Your task to perform on an android device: Add "logitech g pro" to the cart on ebay, then select checkout. Image 0: 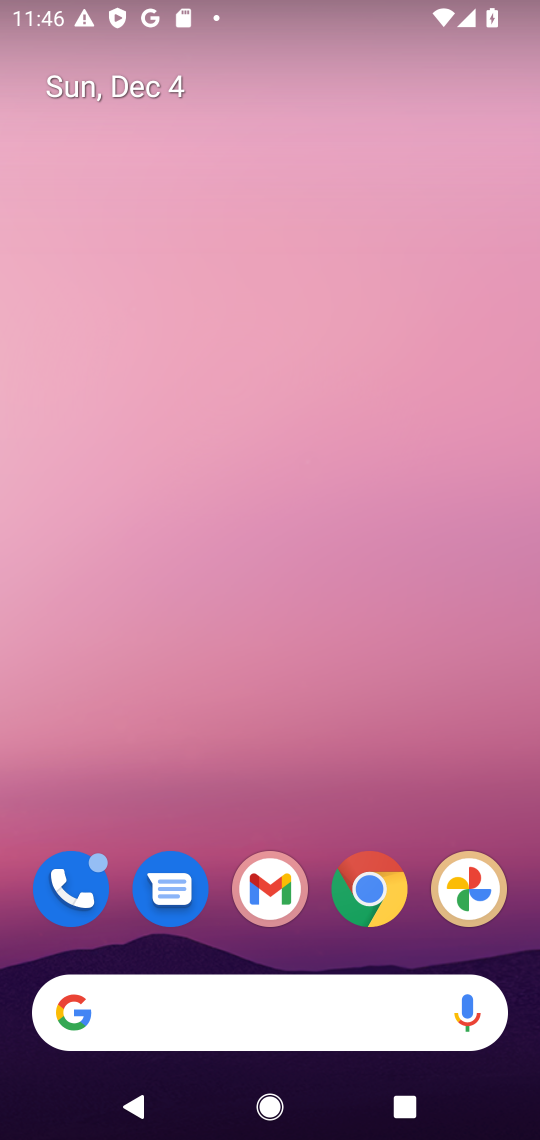
Step 0: click (361, 880)
Your task to perform on an android device: Add "logitech g pro" to the cart on ebay, then select checkout. Image 1: 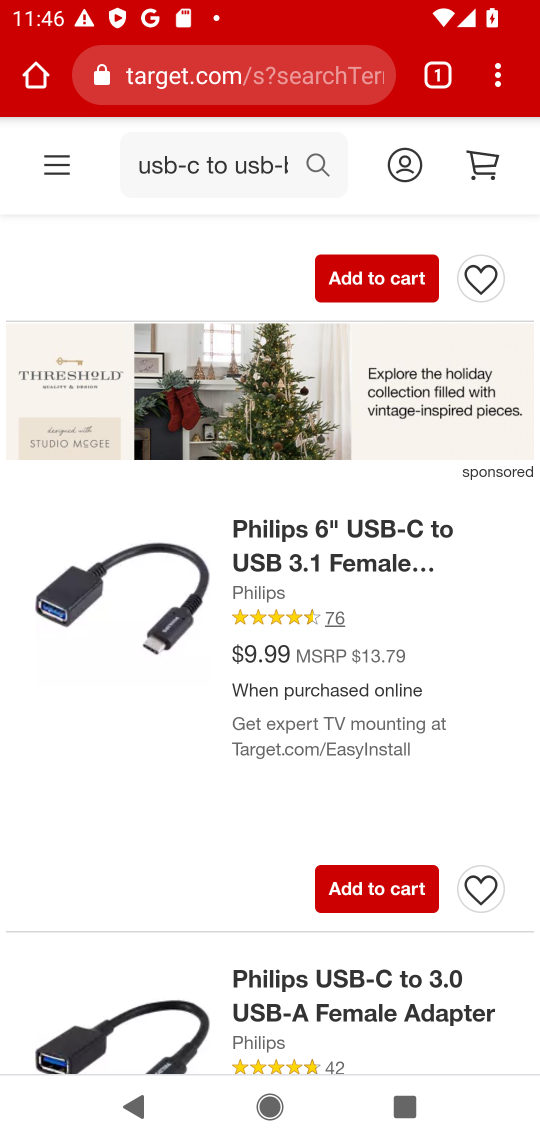
Step 1: click (215, 71)
Your task to perform on an android device: Add "logitech g pro" to the cart on ebay, then select checkout. Image 2: 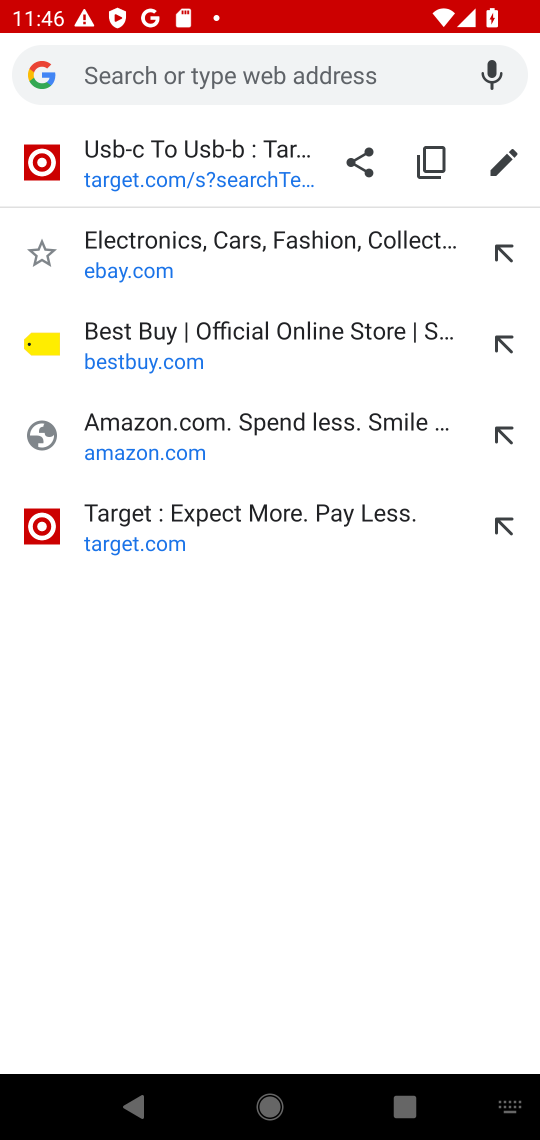
Step 2: click (211, 249)
Your task to perform on an android device: Add "logitech g pro" to the cart on ebay, then select checkout. Image 3: 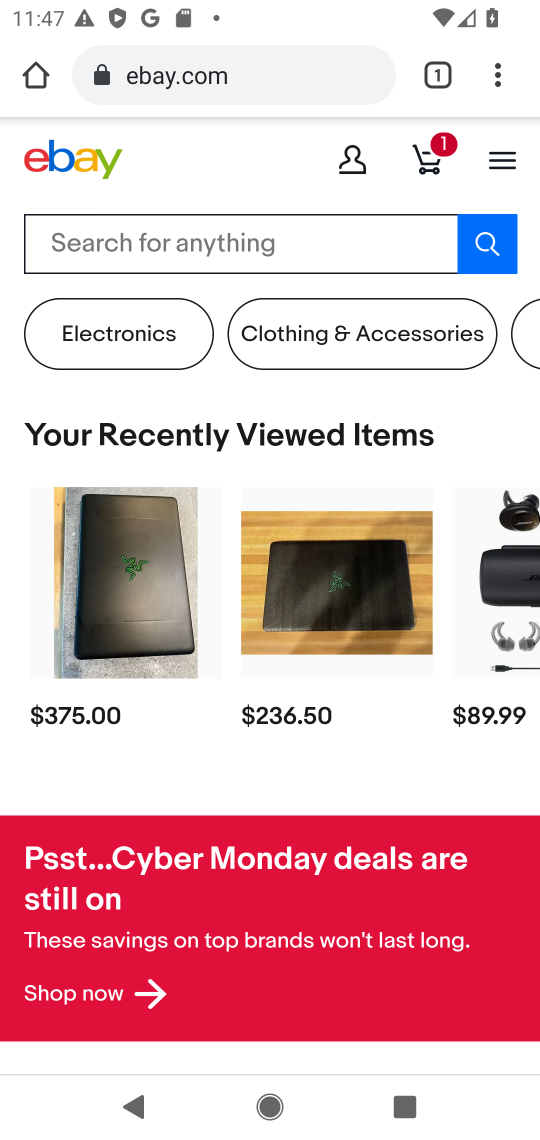
Step 3: click (214, 222)
Your task to perform on an android device: Add "logitech g pro" to the cart on ebay, then select checkout. Image 4: 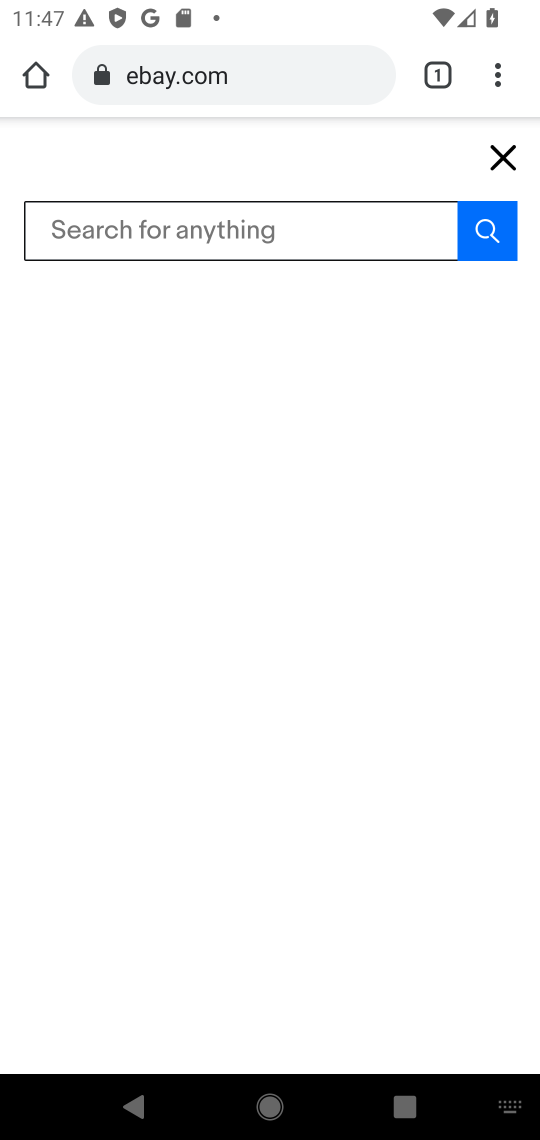
Step 4: type "logitech g pro"
Your task to perform on an android device: Add "logitech g pro" to the cart on ebay, then select checkout. Image 5: 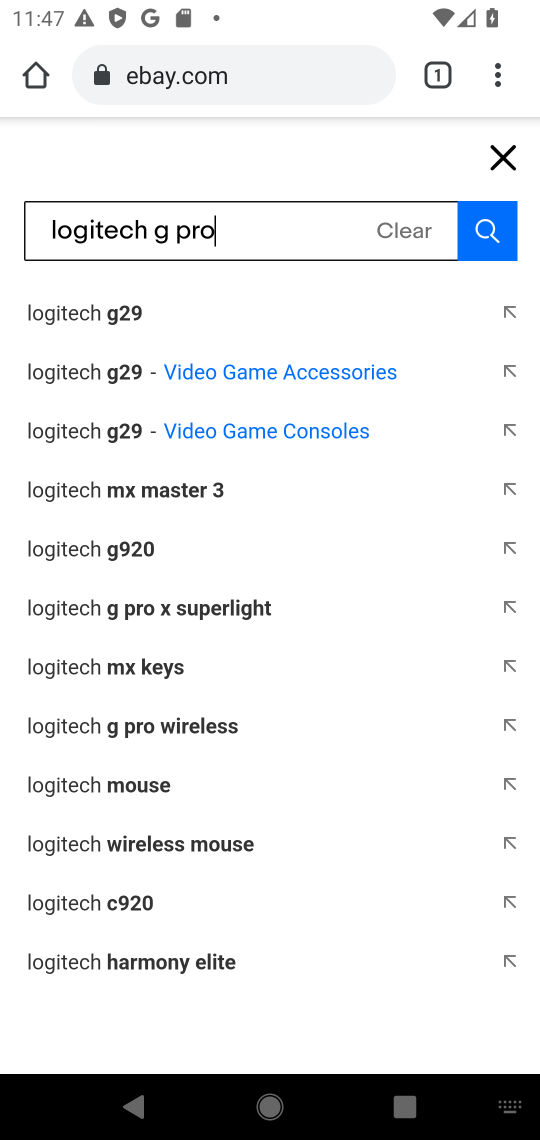
Step 5: press enter
Your task to perform on an android device: Add "logitech g pro" to the cart on ebay, then select checkout. Image 6: 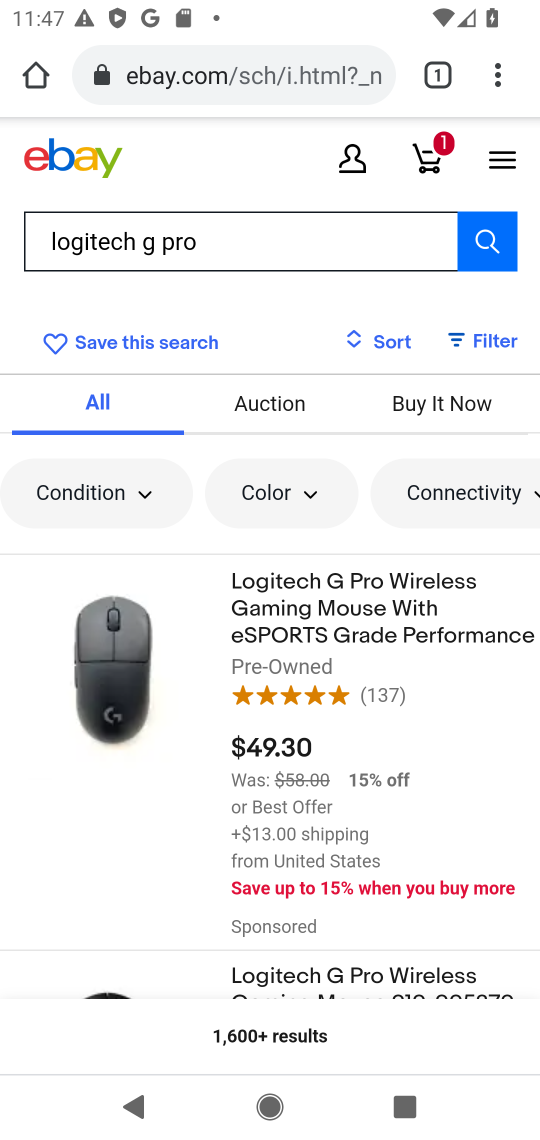
Step 6: click (122, 688)
Your task to perform on an android device: Add "logitech g pro" to the cart on ebay, then select checkout. Image 7: 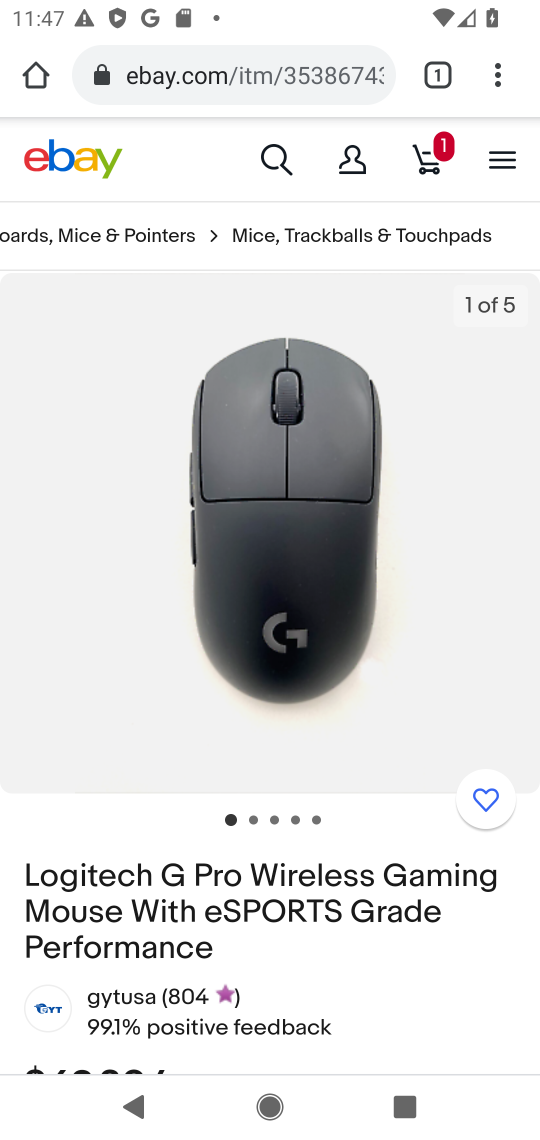
Step 7: drag from (429, 935) to (352, 290)
Your task to perform on an android device: Add "logitech g pro" to the cart on ebay, then select checkout. Image 8: 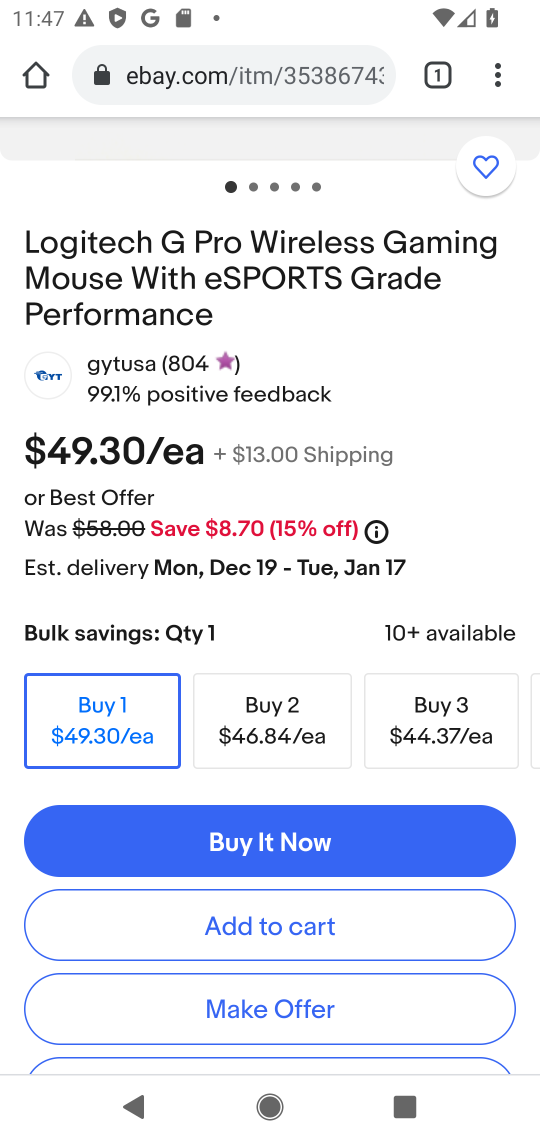
Step 8: click (290, 930)
Your task to perform on an android device: Add "logitech g pro" to the cart on ebay, then select checkout. Image 9: 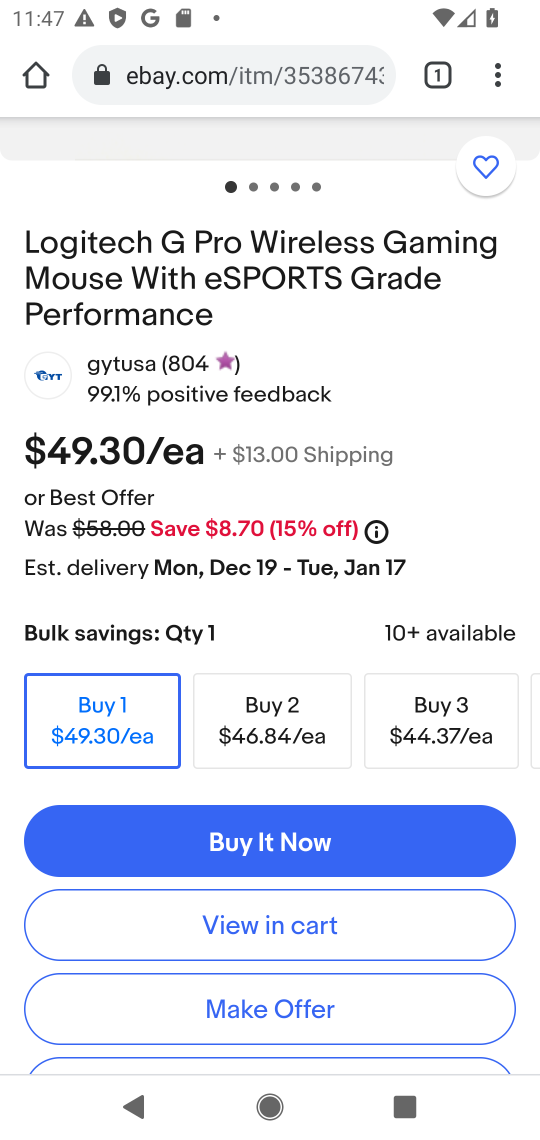
Step 9: click (289, 929)
Your task to perform on an android device: Add "logitech g pro" to the cart on ebay, then select checkout. Image 10: 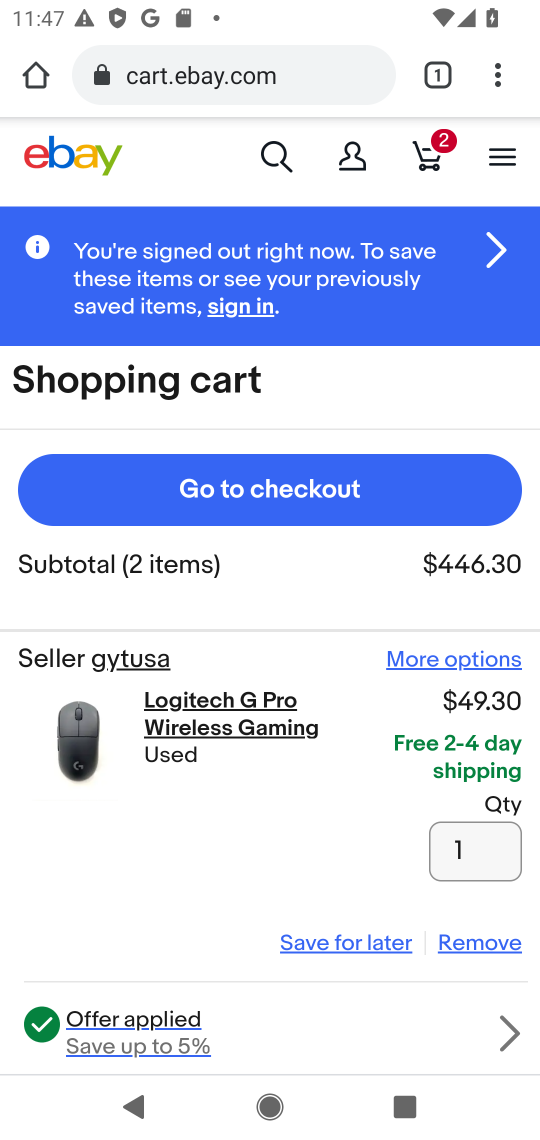
Step 10: click (293, 485)
Your task to perform on an android device: Add "logitech g pro" to the cart on ebay, then select checkout. Image 11: 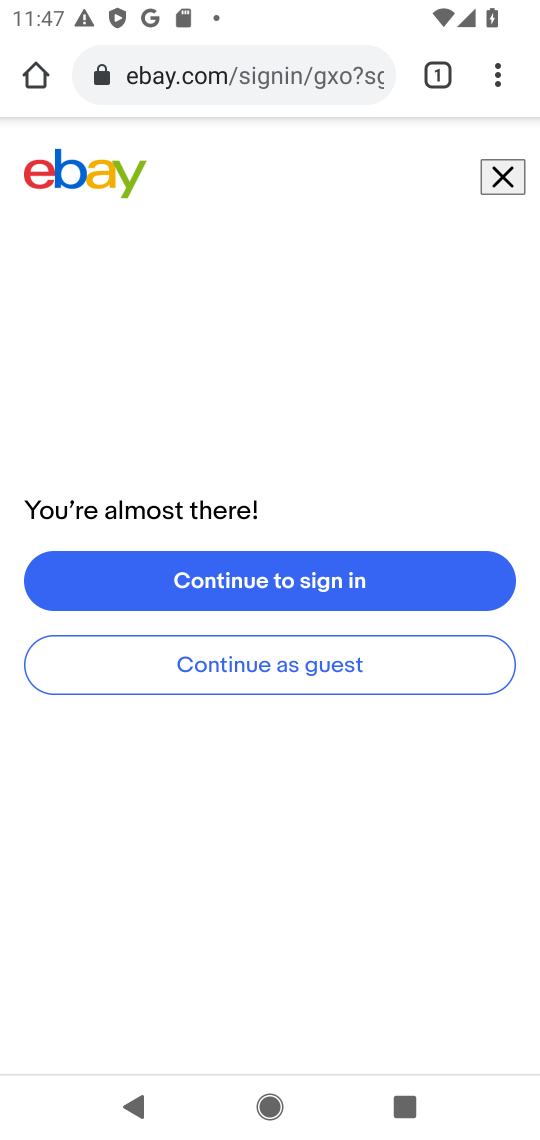
Step 11: task complete